Your task to perform on an android device: Open Chrome and go to the settings page Image 0: 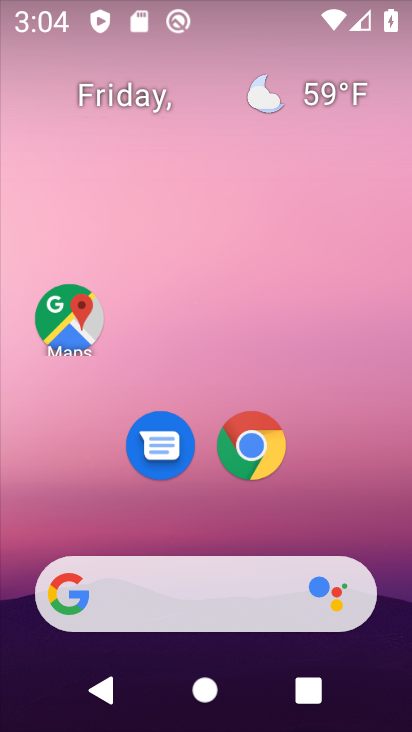
Step 0: click (249, 442)
Your task to perform on an android device: Open Chrome and go to the settings page Image 1: 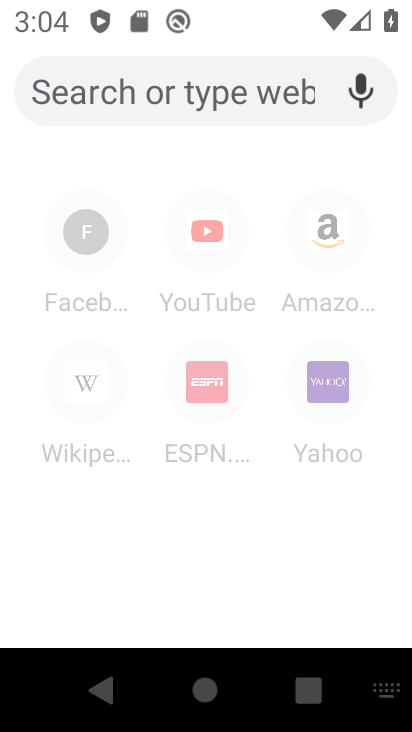
Step 1: press back button
Your task to perform on an android device: Open Chrome and go to the settings page Image 2: 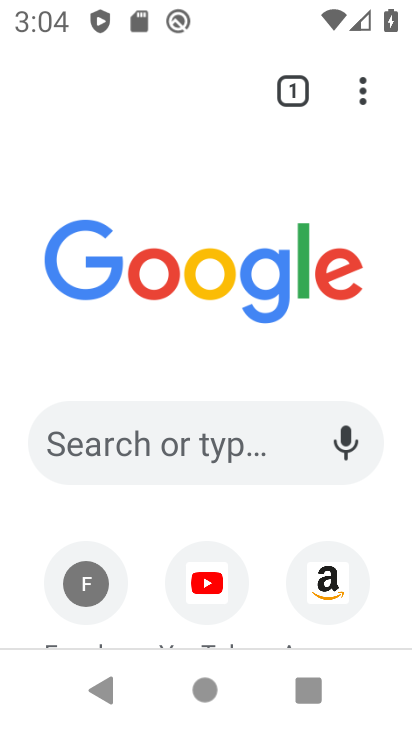
Step 2: click (363, 96)
Your task to perform on an android device: Open Chrome and go to the settings page Image 3: 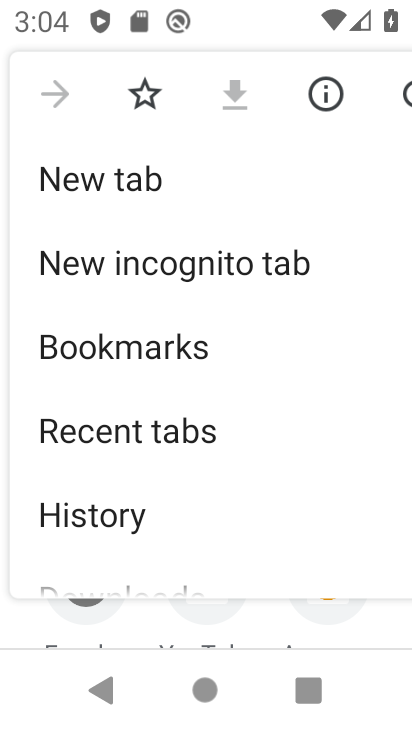
Step 3: drag from (248, 531) to (309, 180)
Your task to perform on an android device: Open Chrome and go to the settings page Image 4: 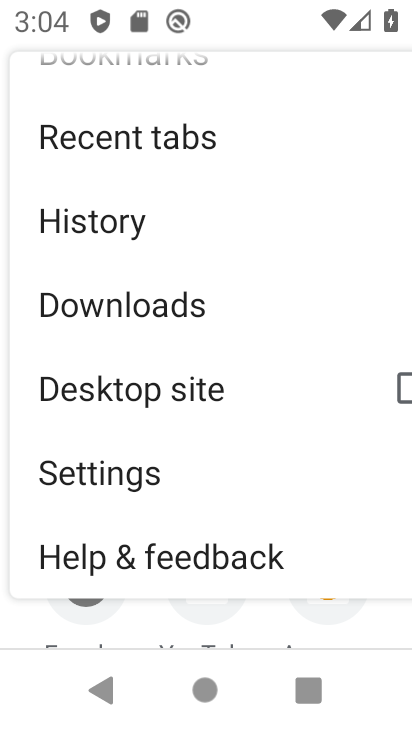
Step 4: click (113, 463)
Your task to perform on an android device: Open Chrome and go to the settings page Image 5: 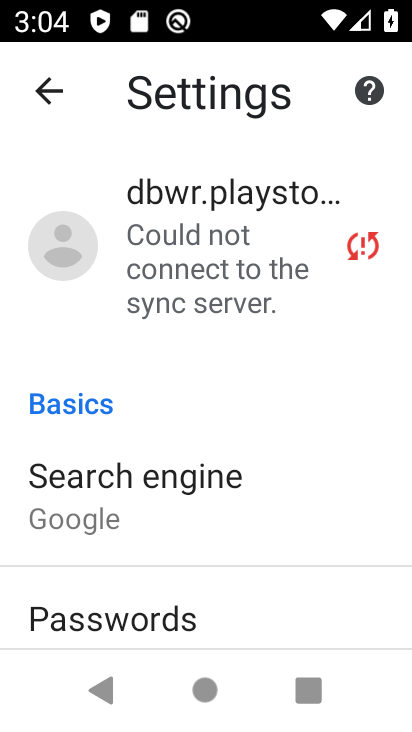
Step 5: task complete